Your task to perform on an android device: open app "Upside-Cash back on gas & food" (install if not already installed) and go to login screen Image 0: 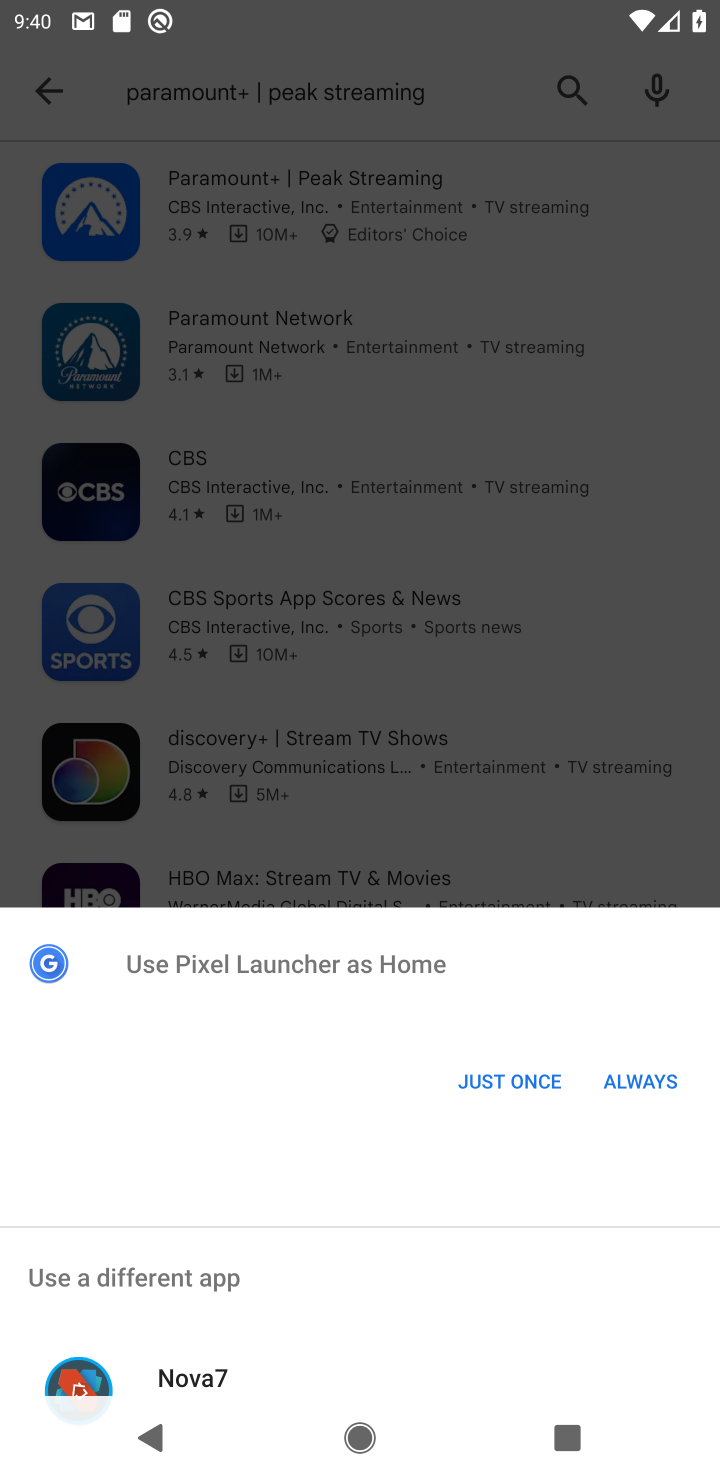
Step 0: press back button
Your task to perform on an android device: open app "Upside-Cash back on gas & food" (install if not already installed) and go to login screen Image 1: 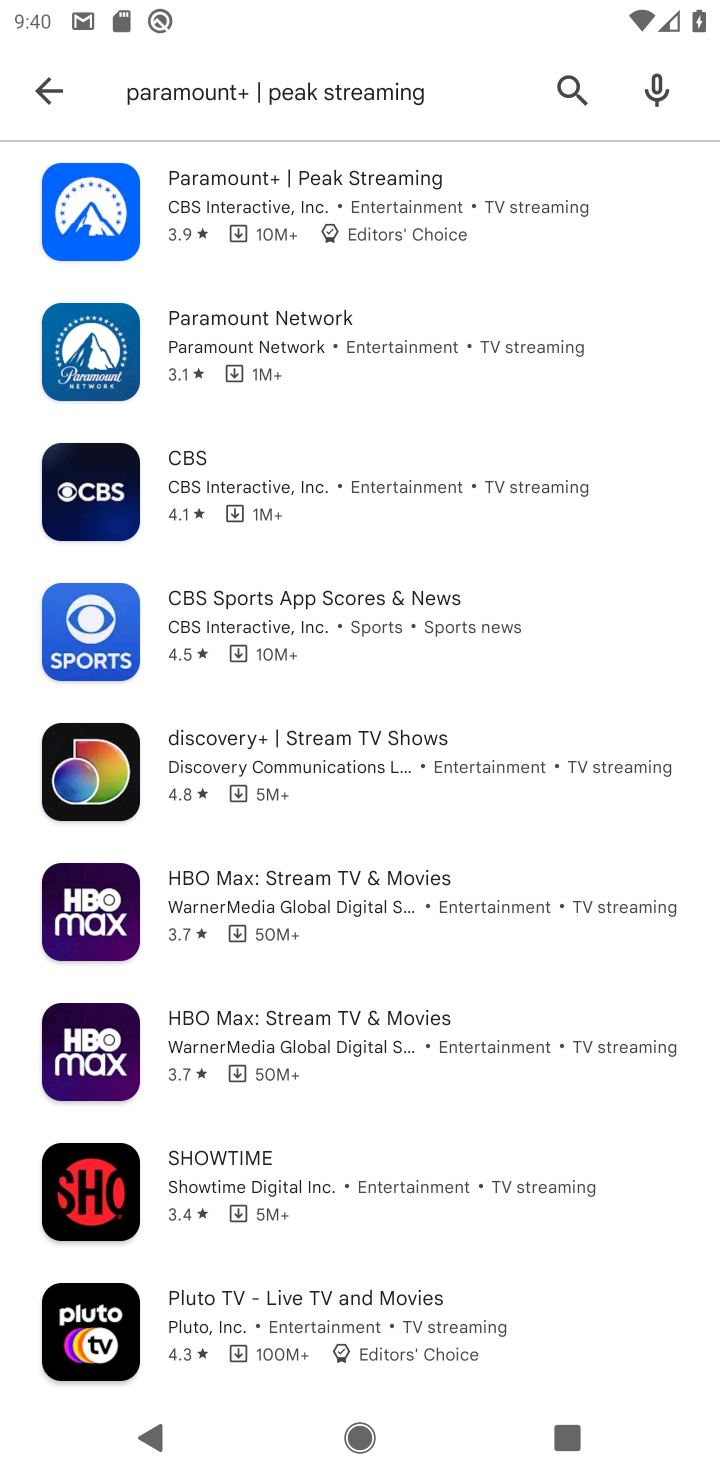
Step 1: click (568, 84)
Your task to perform on an android device: open app "Upside-Cash back on gas & food" (install if not already installed) and go to login screen Image 2: 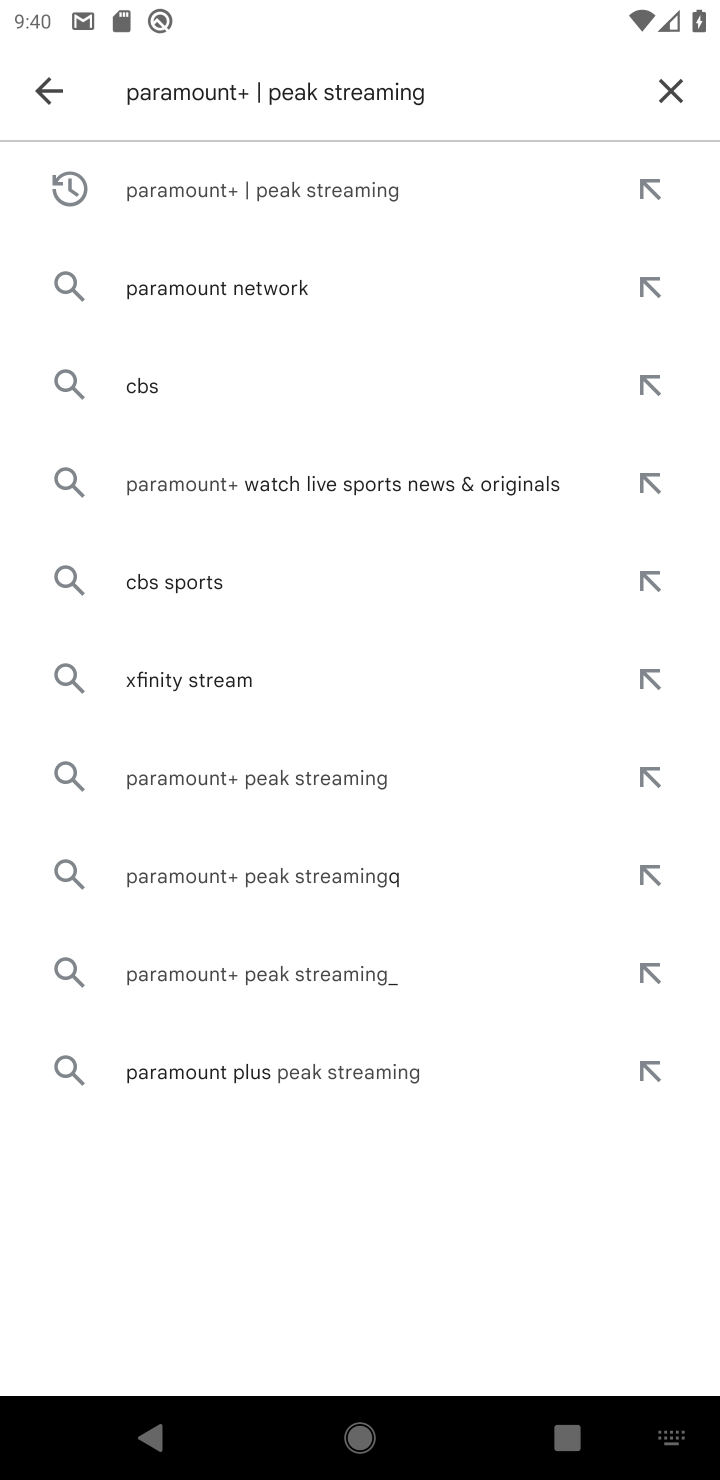
Step 2: click (666, 94)
Your task to perform on an android device: open app "Upside-Cash back on gas & food" (install if not already installed) and go to login screen Image 3: 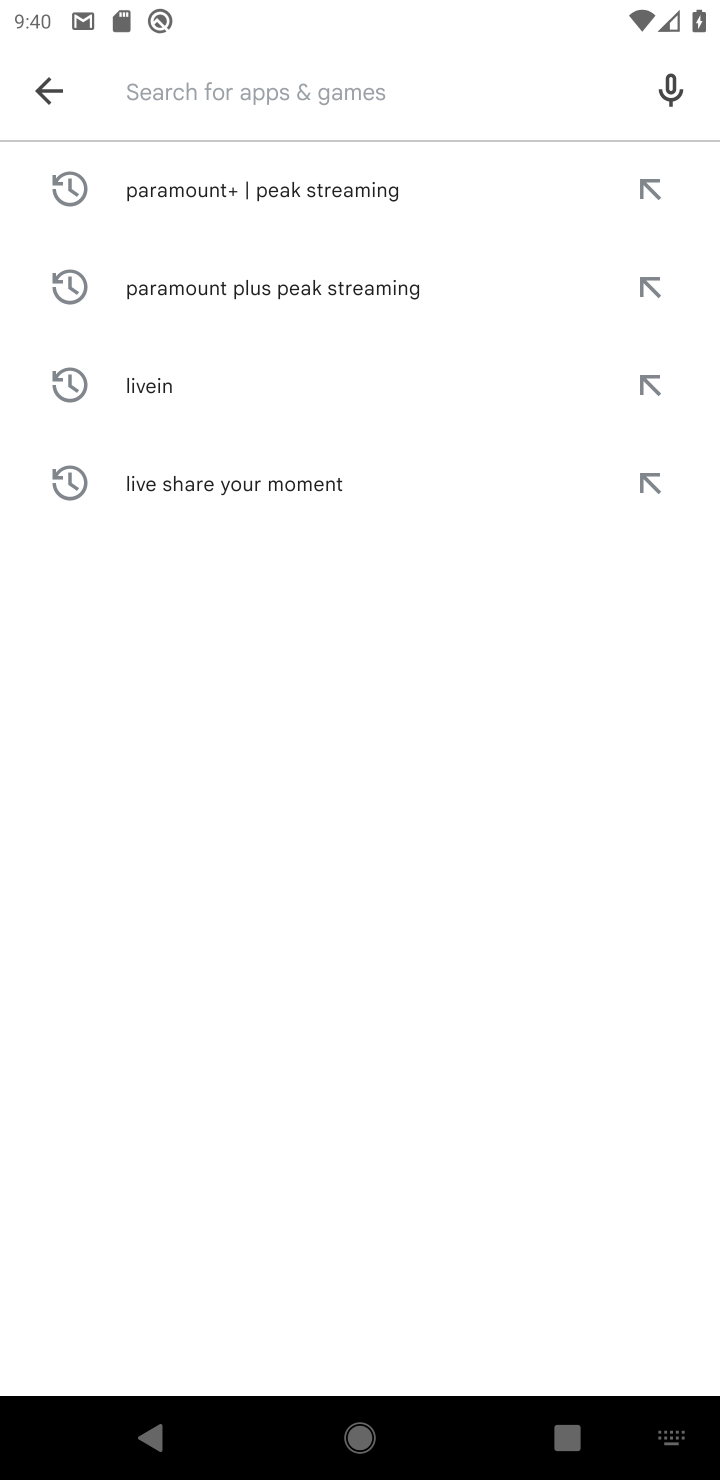
Step 3: click (356, 93)
Your task to perform on an android device: open app "Upside-Cash back on gas & food" (install if not already installed) and go to login screen Image 4: 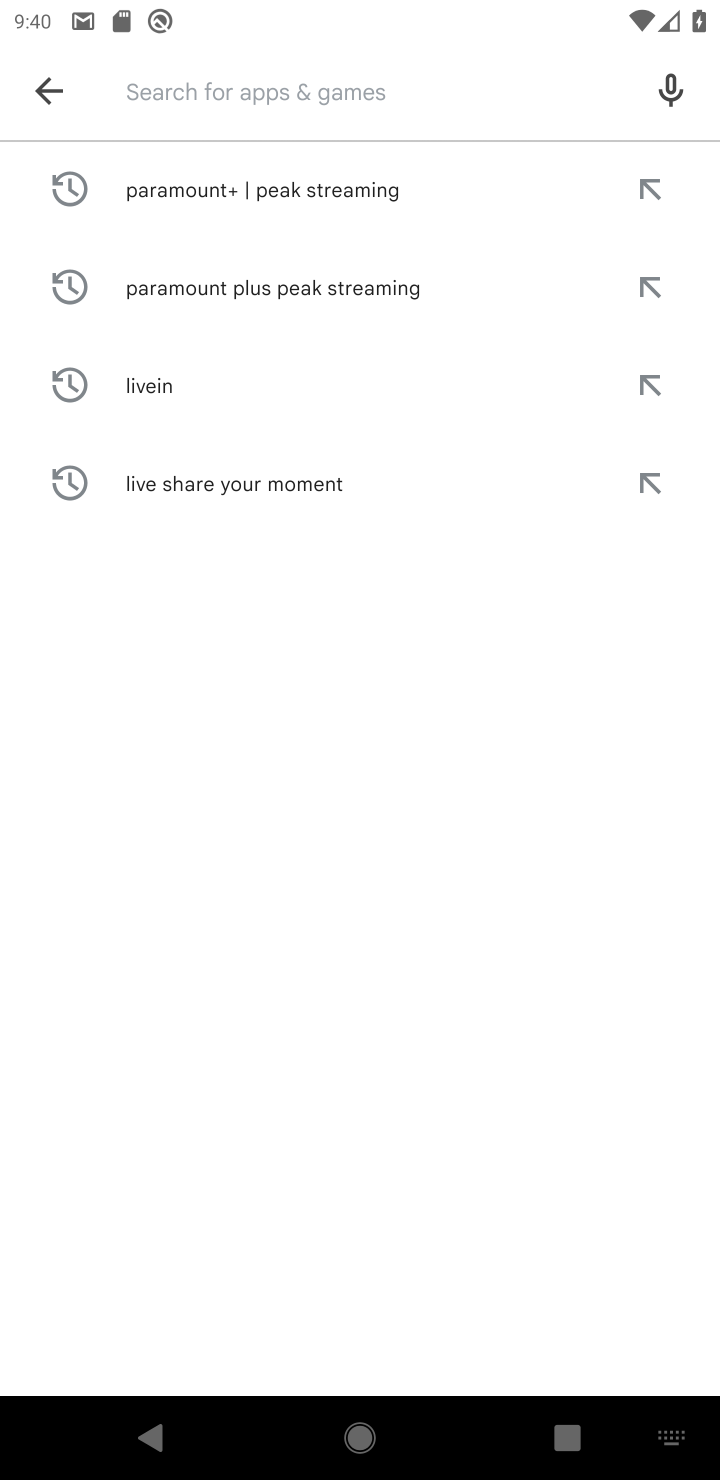
Step 4: type "Upside-Cash back on gas & food"
Your task to perform on an android device: open app "Upside-Cash back on gas & food" (install if not already installed) and go to login screen Image 5: 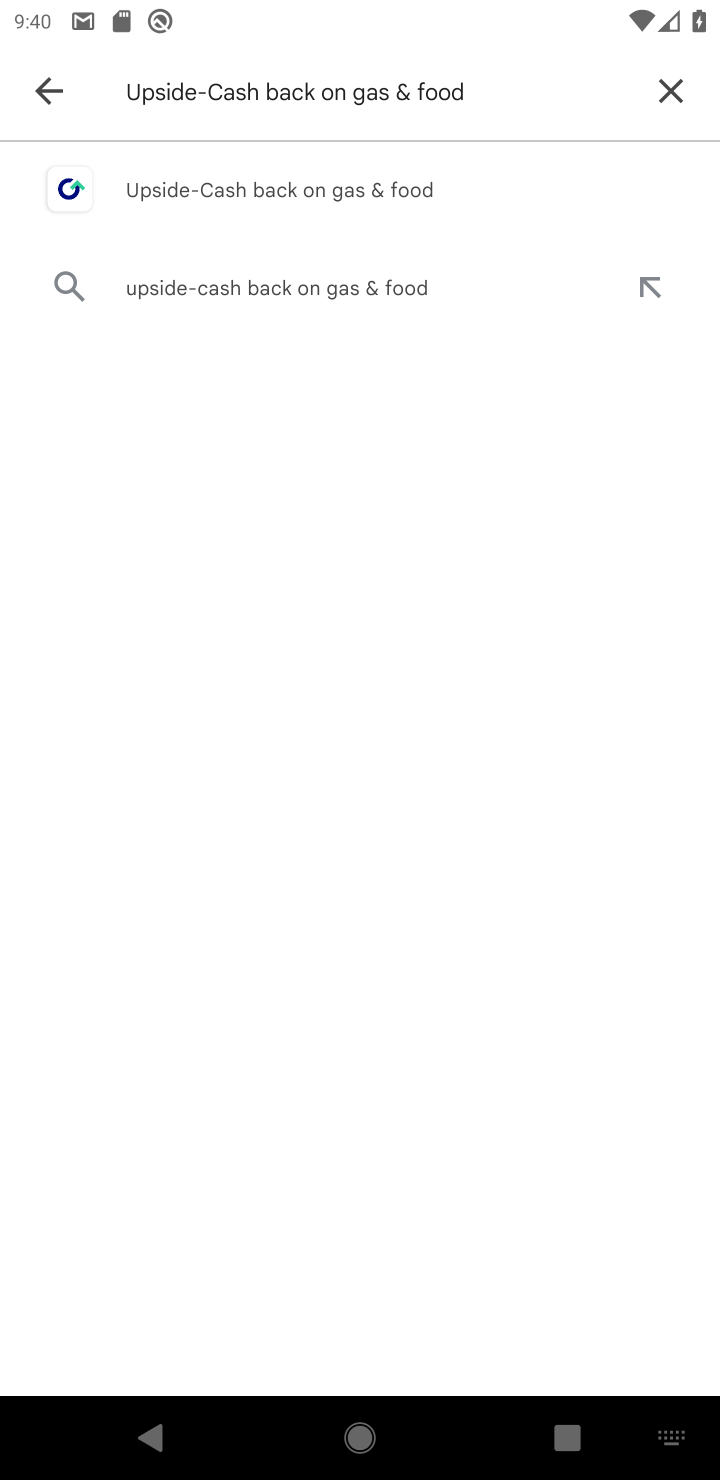
Step 5: click (291, 177)
Your task to perform on an android device: open app "Upside-Cash back on gas & food" (install if not already installed) and go to login screen Image 6: 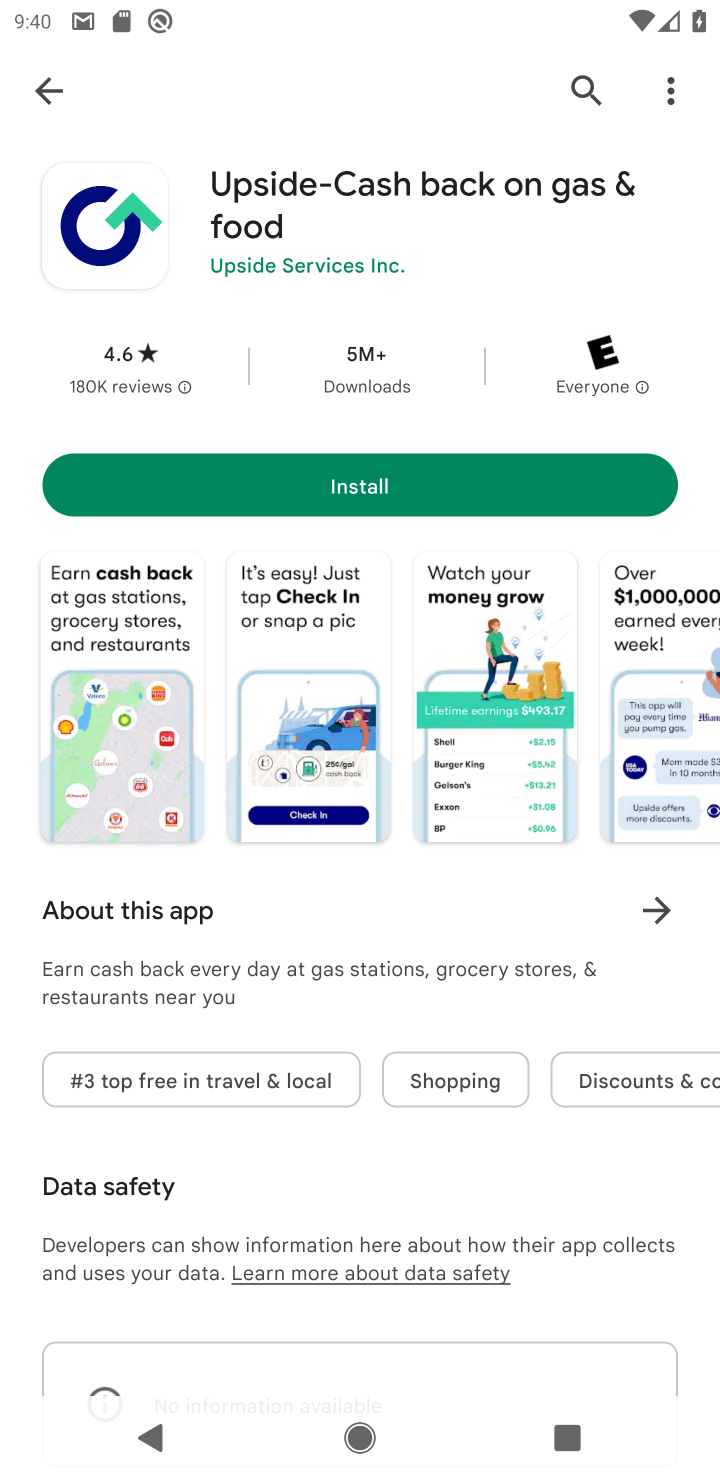
Step 6: click (461, 484)
Your task to perform on an android device: open app "Upside-Cash back on gas & food" (install if not already installed) and go to login screen Image 7: 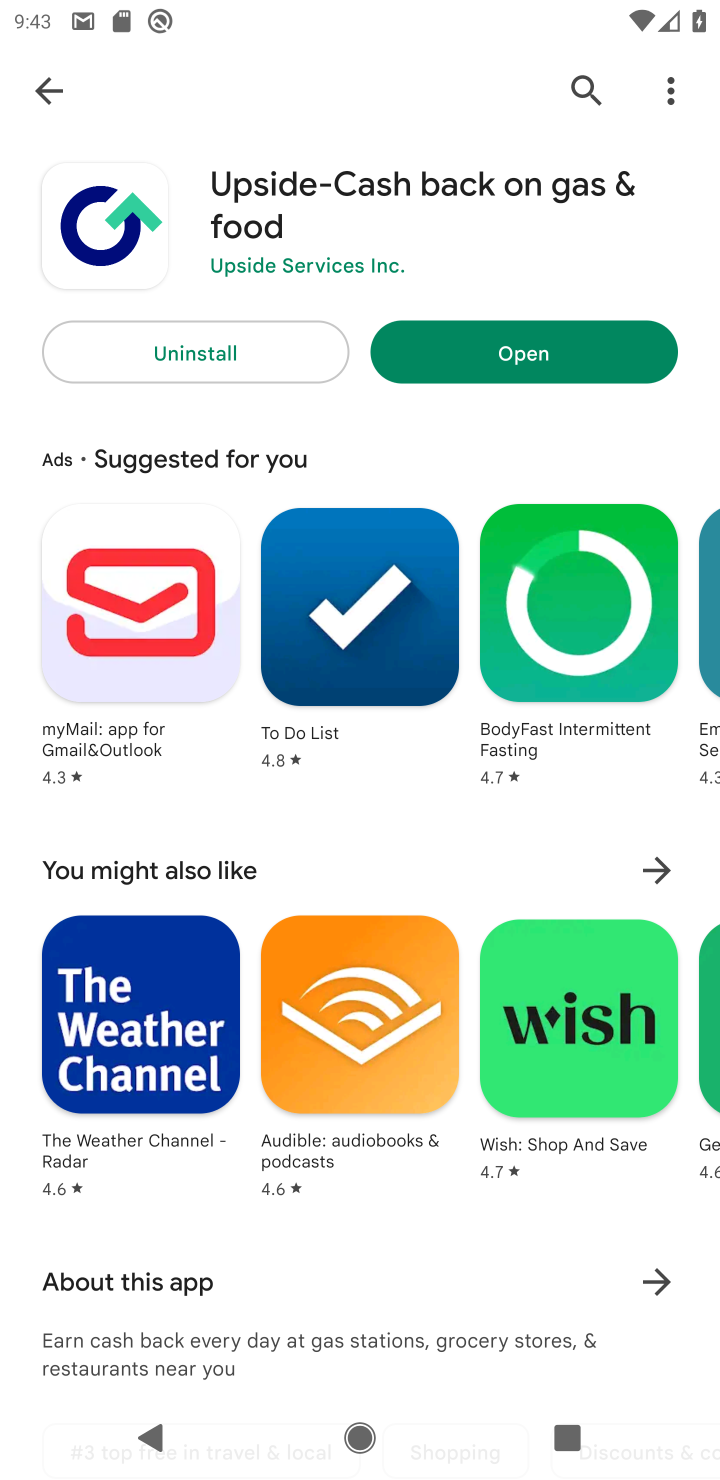
Step 7: click (612, 342)
Your task to perform on an android device: open app "Upside-Cash back on gas & food" (install if not already installed) and go to login screen Image 8: 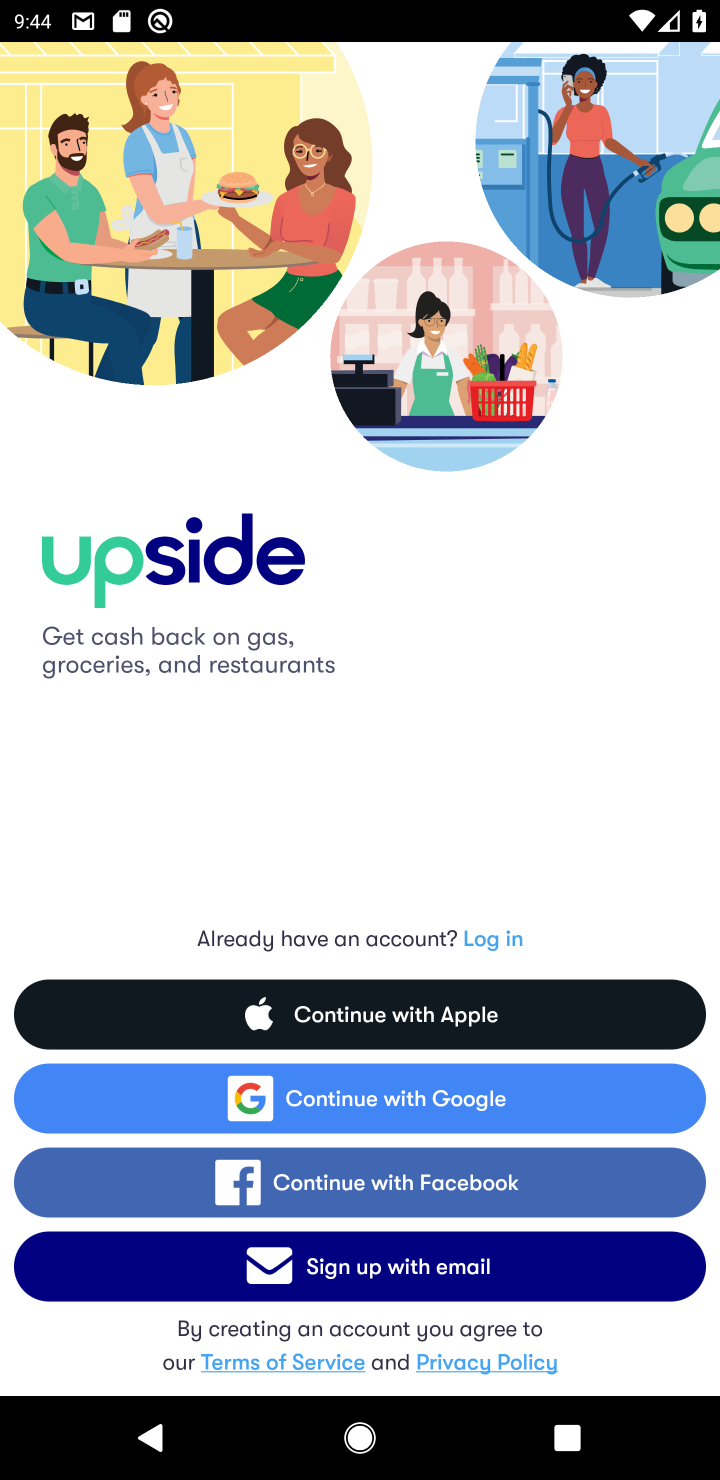
Step 8: task complete